Your task to perform on an android device: Open ESPN.com Image 0: 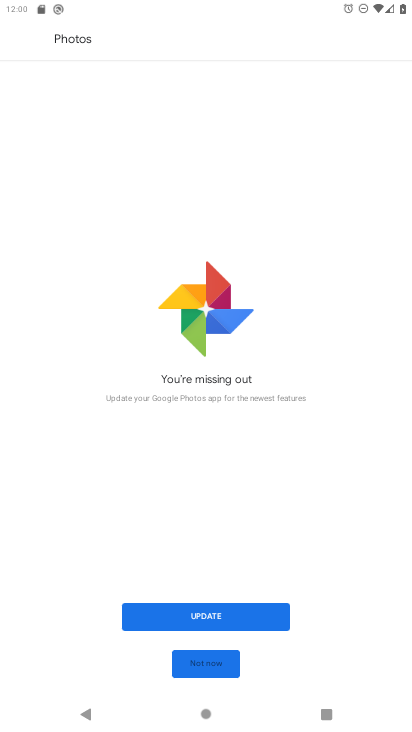
Step 0: press home button
Your task to perform on an android device: Open ESPN.com Image 1: 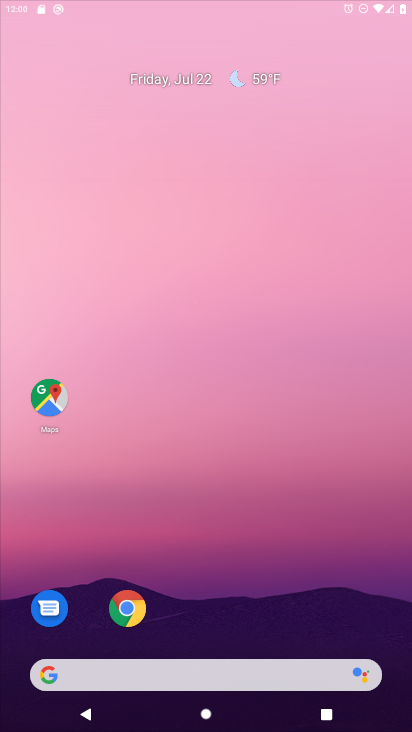
Step 1: drag from (359, 662) to (152, 89)
Your task to perform on an android device: Open ESPN.com Image 2: 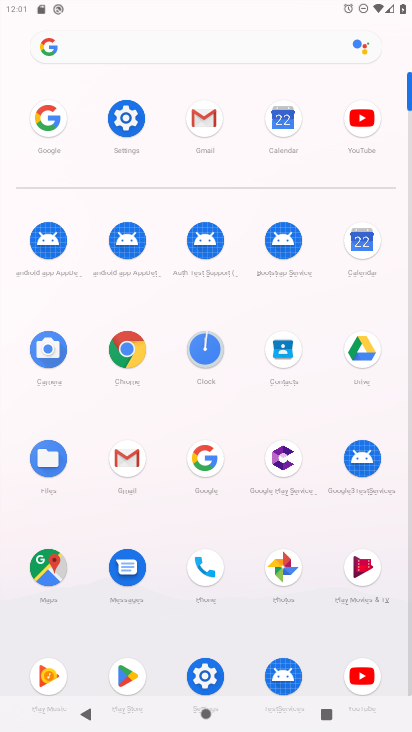
Step 2: click (200, 454)
Your task to perform on an android device: Open ESPN.com Image 3: 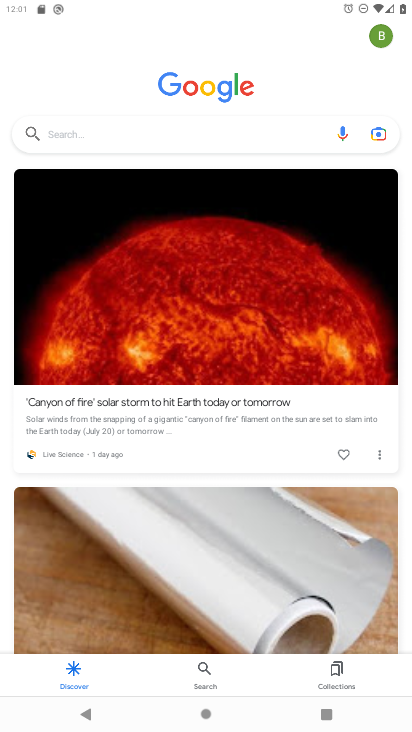
Step 3: click (72, 129)
Your task to perform on an android device: Open ESPN.com Image 4: 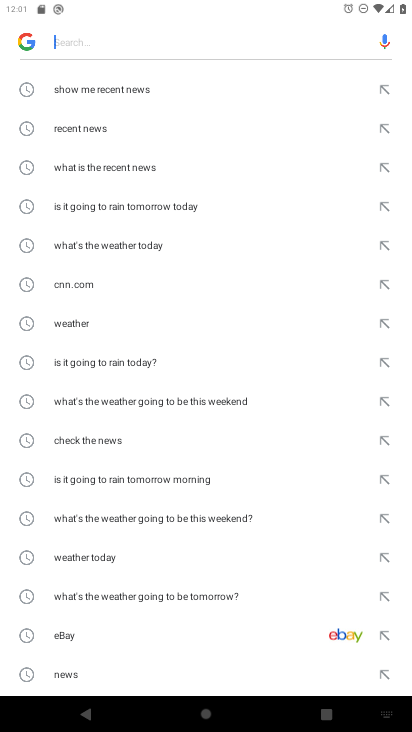
Step 4: type "ESPN.com"
Your task to perform on an android device: Open ESPN.com Image 5: 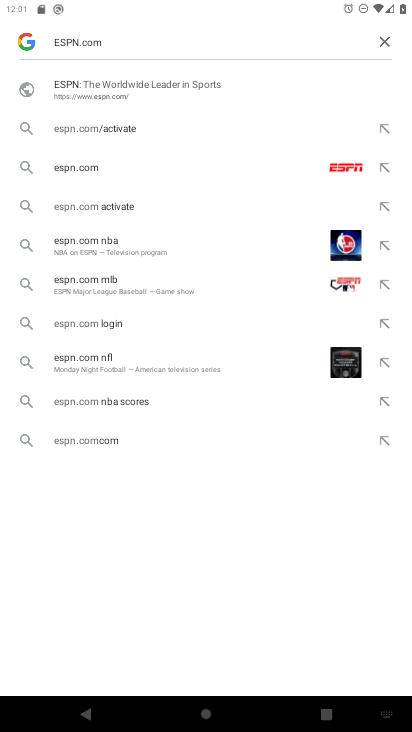
Step 5: click (100, 92)
Your task to perform on an android device: Open ESPN.com Image 6: 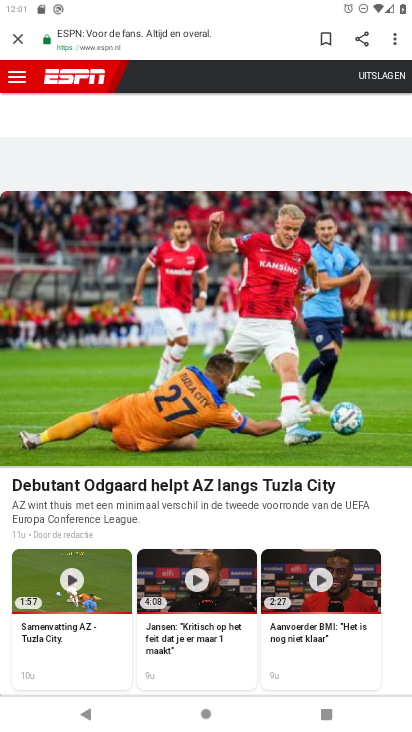
Step 6: task complete